Your task to perform on an android device: View the shopping cart on costco.com. Add "razer blade" to the cart on costco.com Image 0: 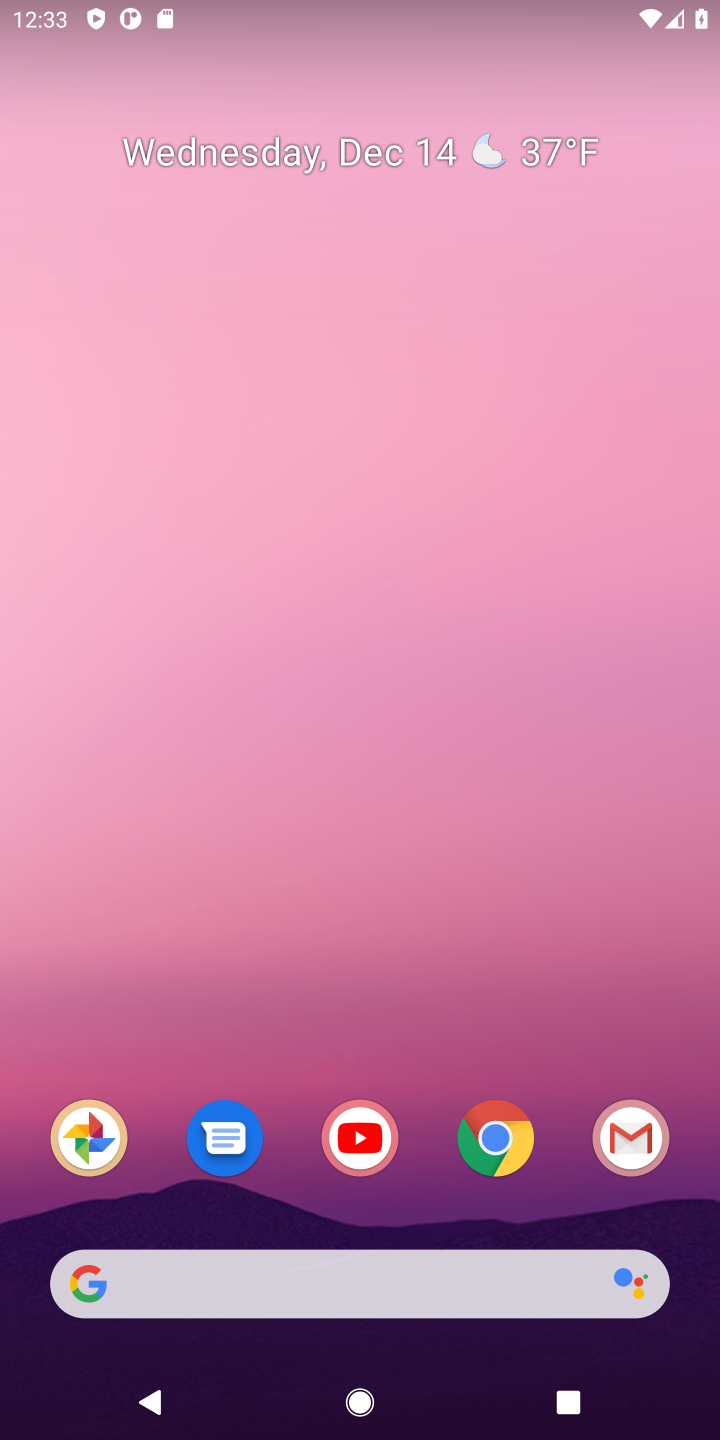
Step 0: click (511, 1125)
Your task to perform on an android device: View the shopping cart on costco.com. Add "razer blade" to the cart on costco.com Image 1: 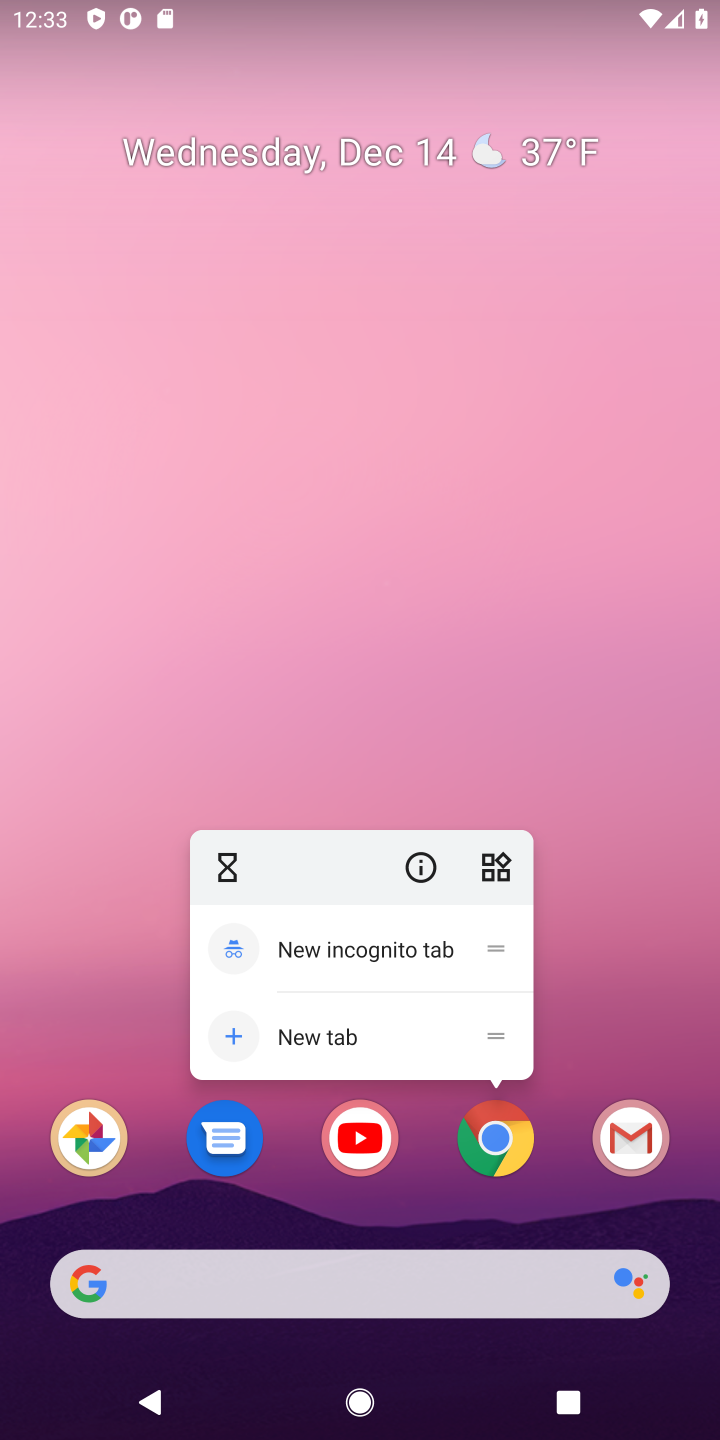
Step 1: click (497, 1144)
Your task to perform on an android device: View the shopping cart on costco.com. Add "razer blade" to the cart on costco.com Image 2: 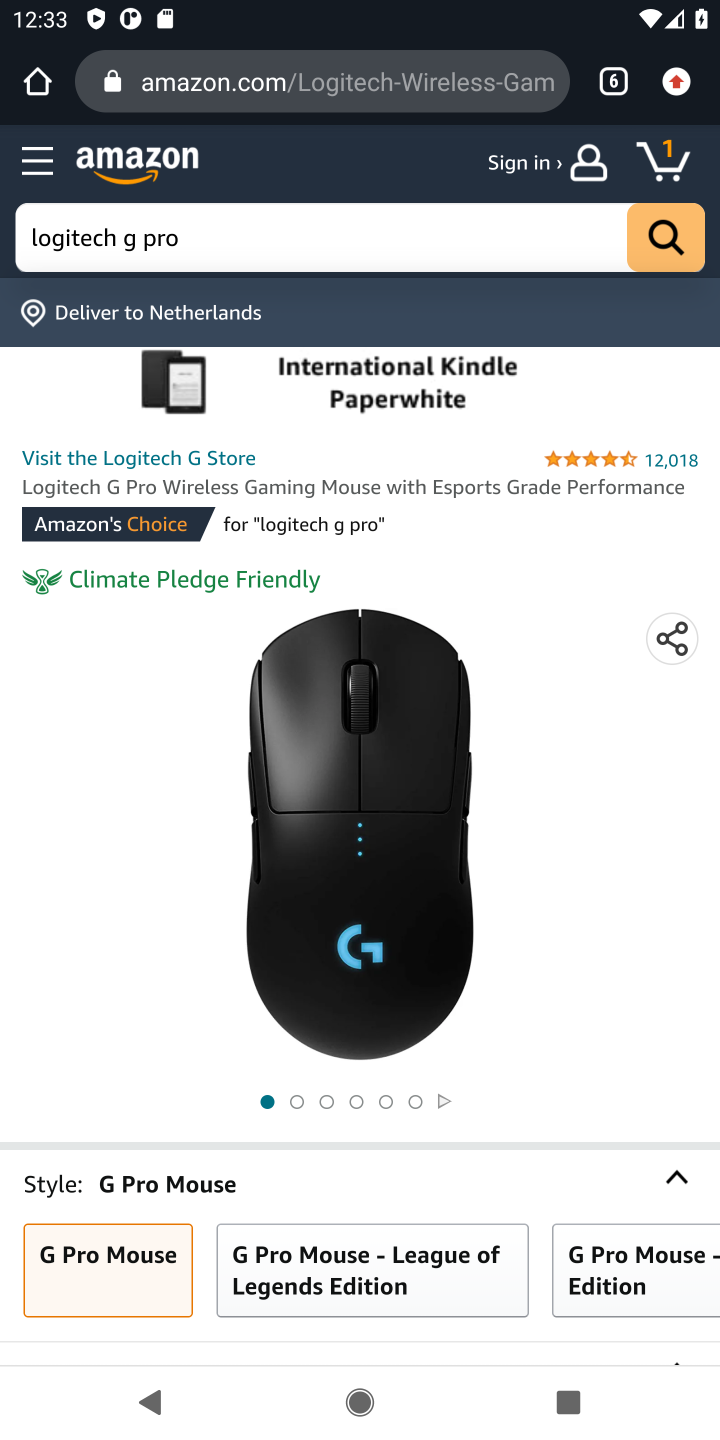
Step 2: click (619, 81)
Your task to perform on an android device: View the shopping cart on costco.com. Add "razer blade" to the cart on costco.com Image 3: 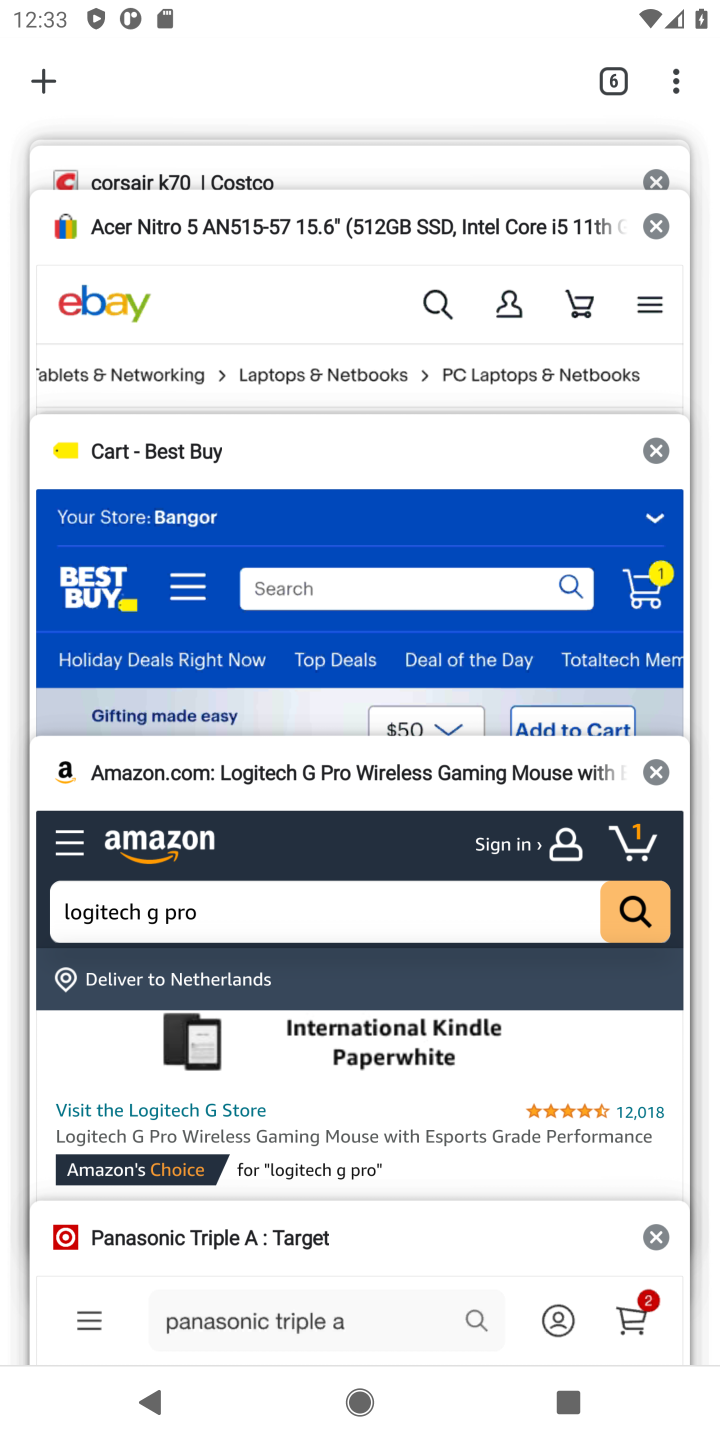
Step 3: click (231, 170)
Your task to perform on an android device: View the shopping cart on costco.com. Add "razer blade" to the cart on costco.com Image 4: 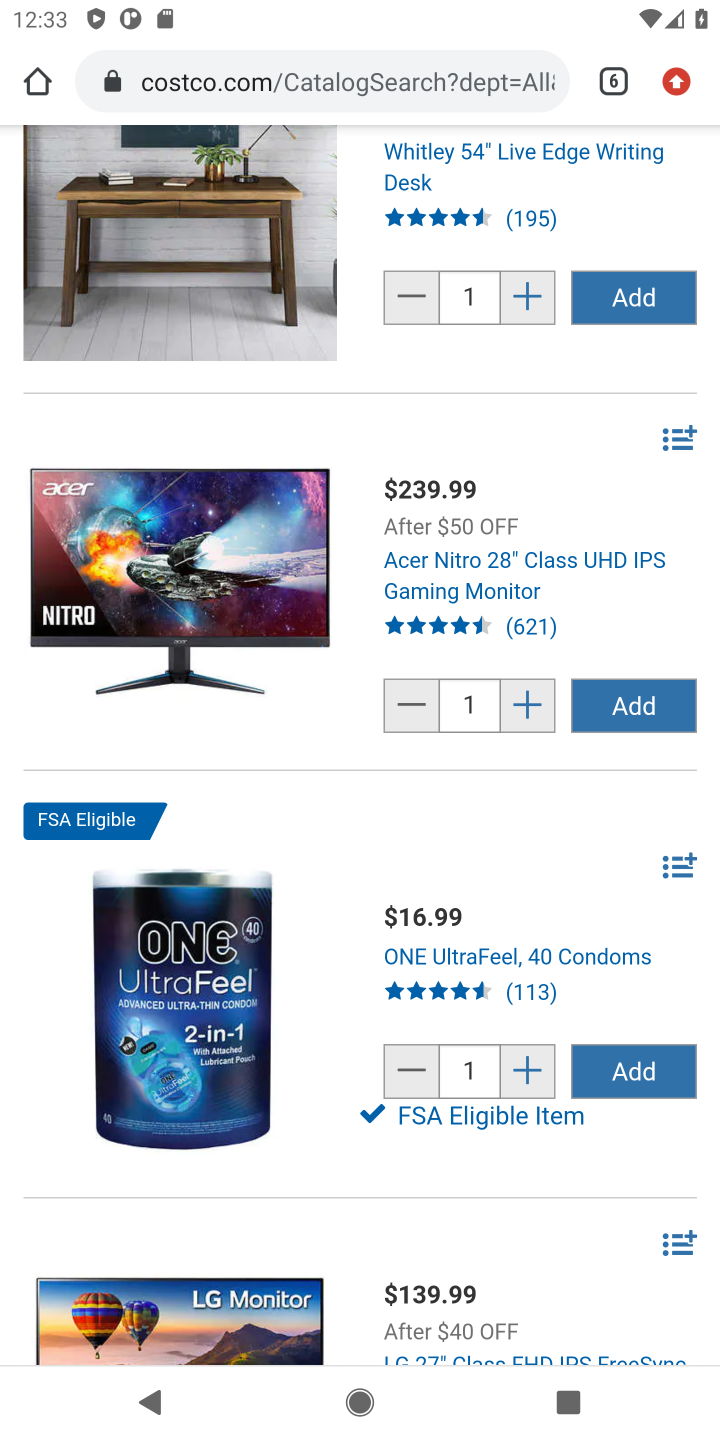
Step 4: drag from (613, 194) to (670, 819)
Your task to perform on an android device: View the shopping cart on costco.com. Add "razer blade" to the cart on costco.com Image 5: 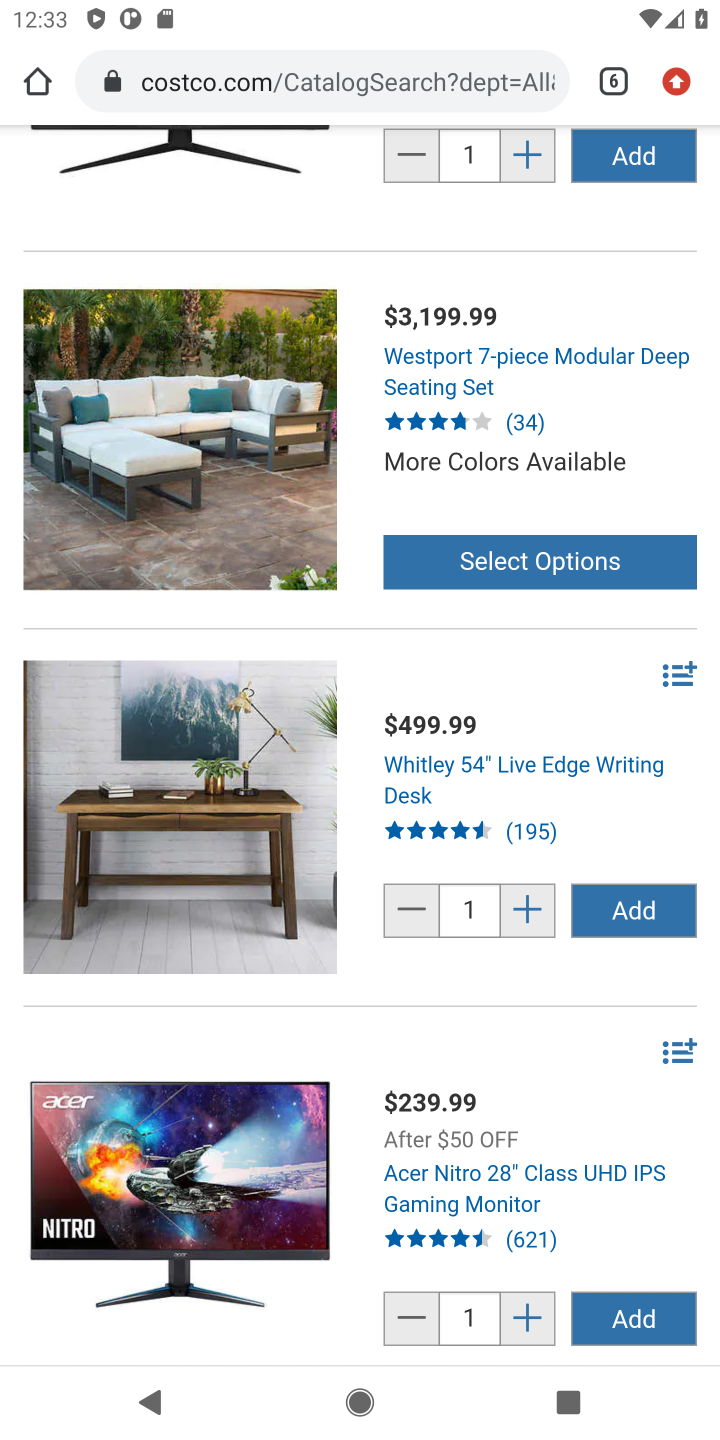
Step 5: drag from (598, 277) to (615, 712)
Your task to perform on an android device: View the shopping cart on costco.com. Add "razer blade" to the cart on costco.com Image 6: 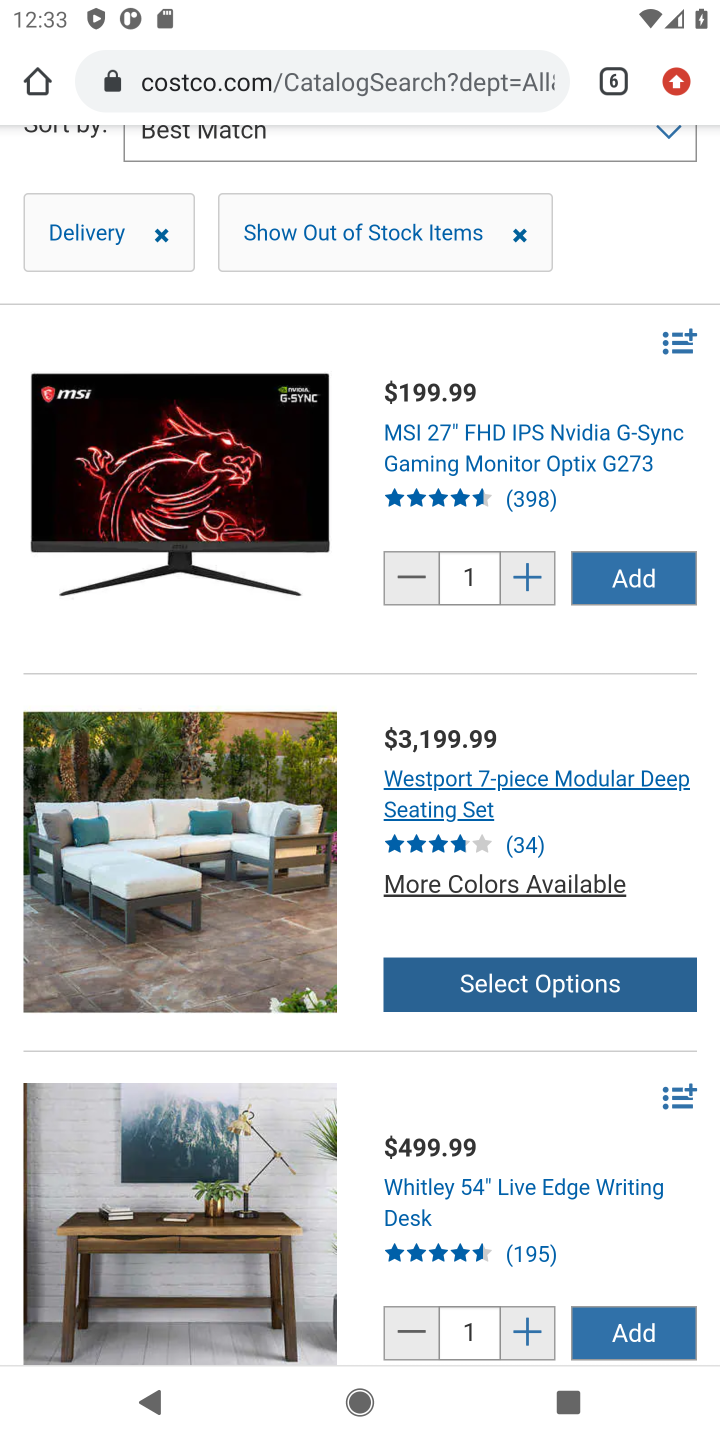
Step 6: drag from (641, 255) to (719, 864)
Your task to perform on an android device: View the shopping cart on costco.com. Add "razer blade" to the cart on costco.com Image 7: 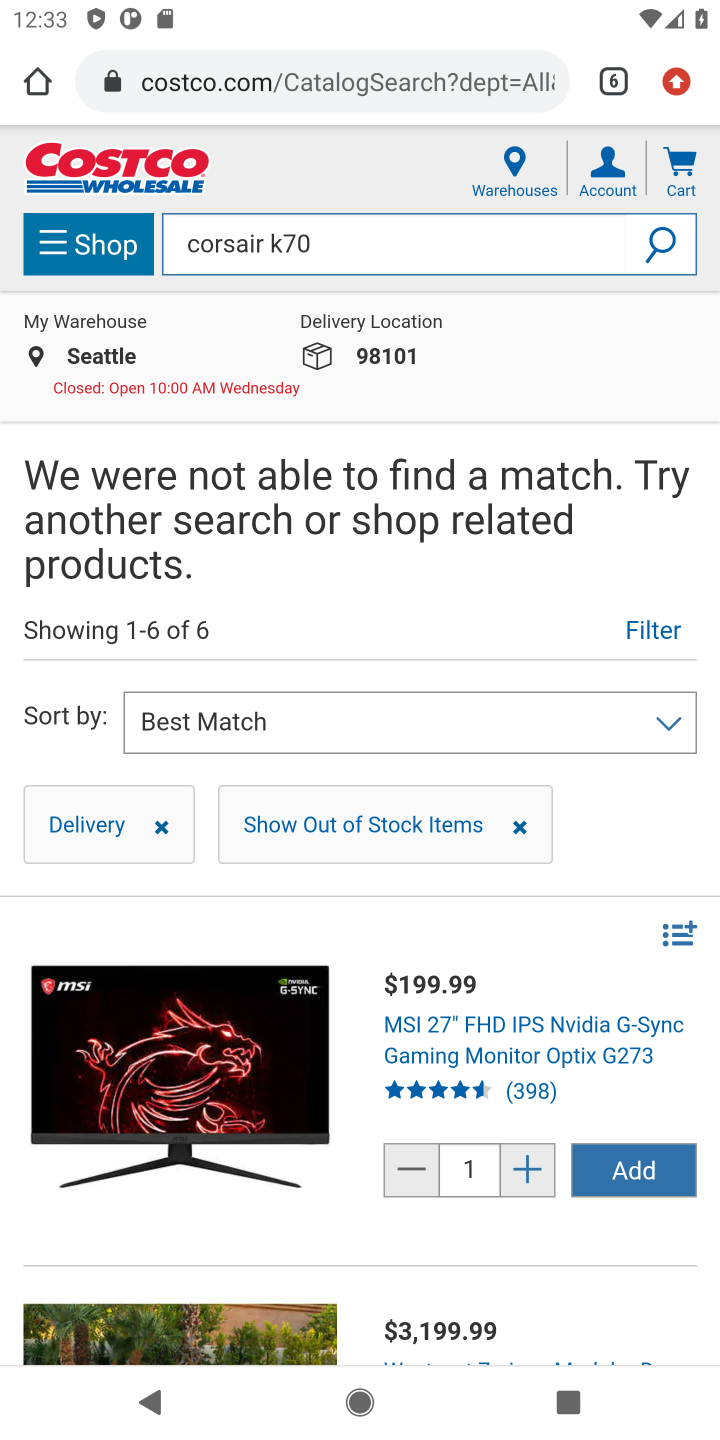
Step 7: drag from (614, 249) to (684, 987)
Your task to perform on an android device: View the shopping cart on costco.com. Add "razer blade" to the cart on costco.com Image 8: 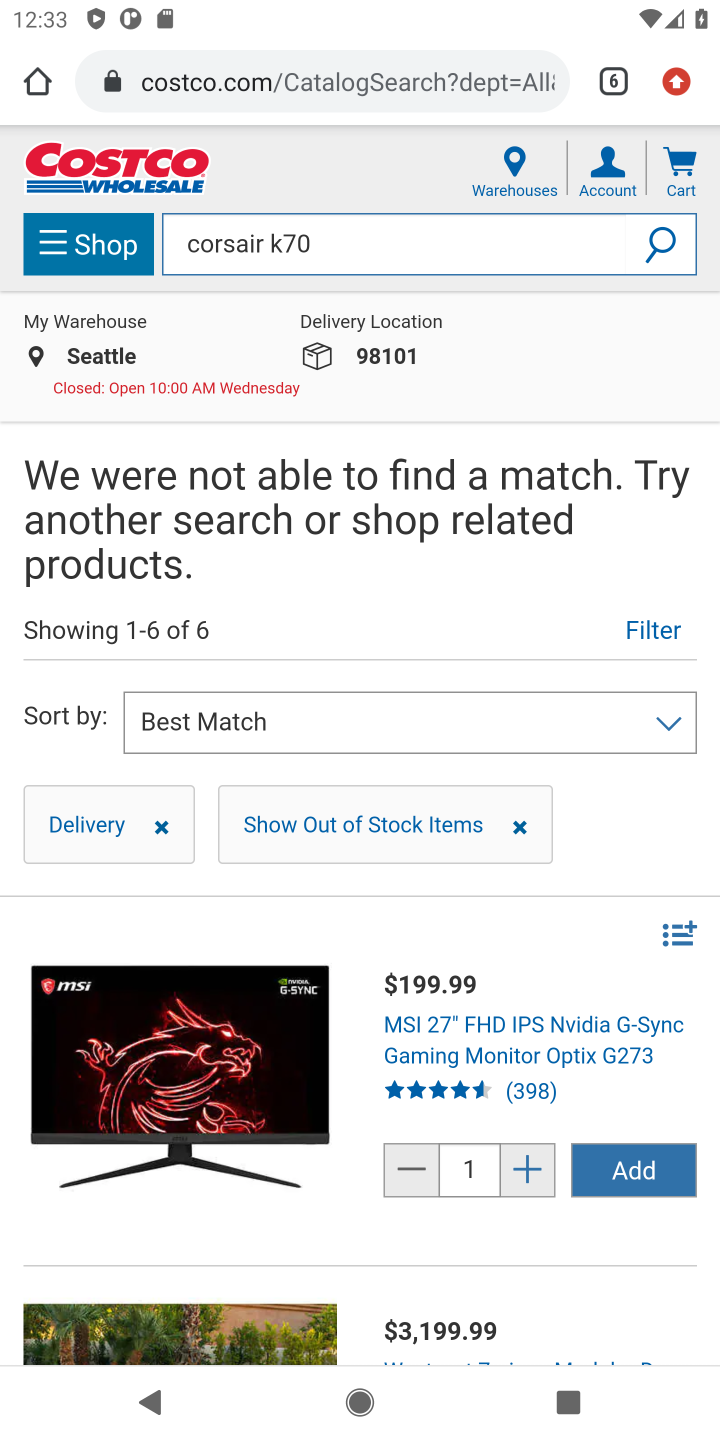
Step 8: click (691, 165)
Your task to perform on an android device: View the shopping cart on costco.com. Add "razer blade" to the cart on costco.com Image 9: 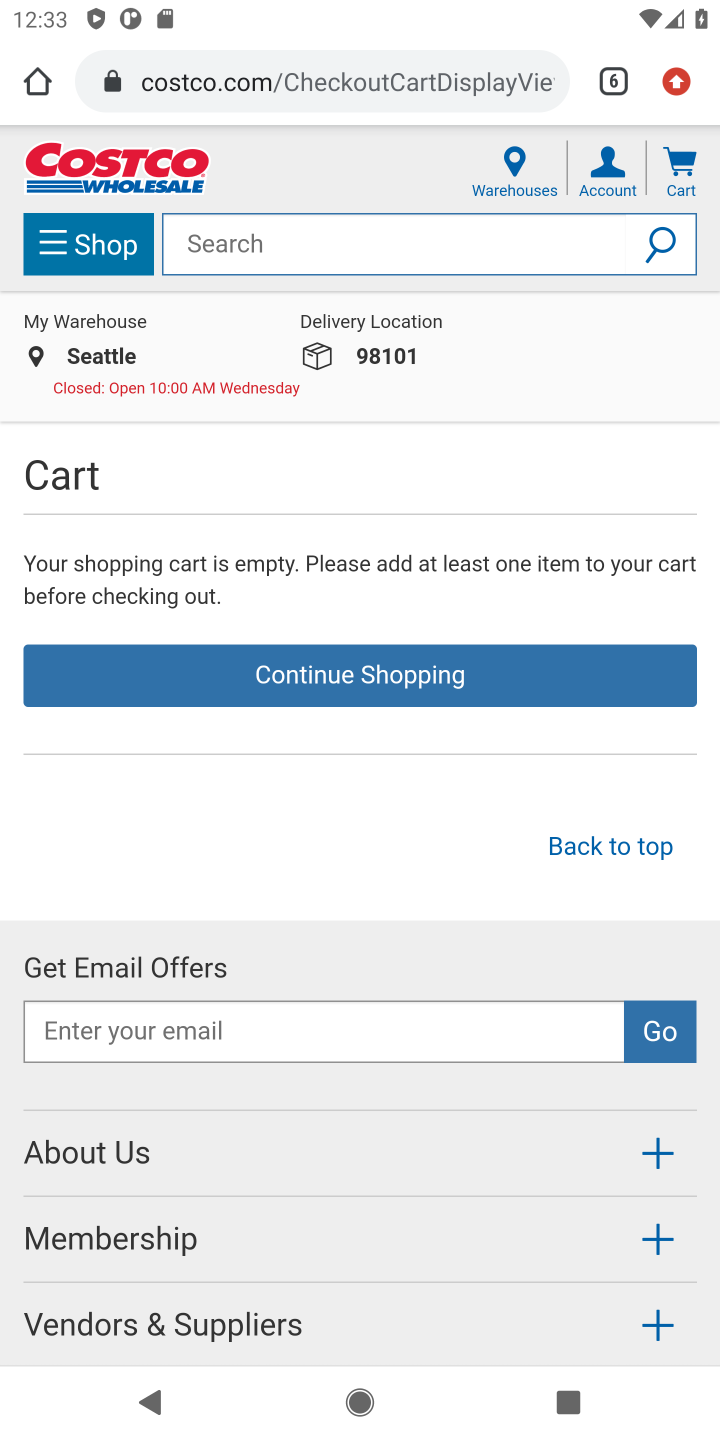
Step 9: click (237, 236)
Your task to perform on an android device: View the shopping cart on costco.com. Add "razer blade" to the cart on costco.com Image 10: 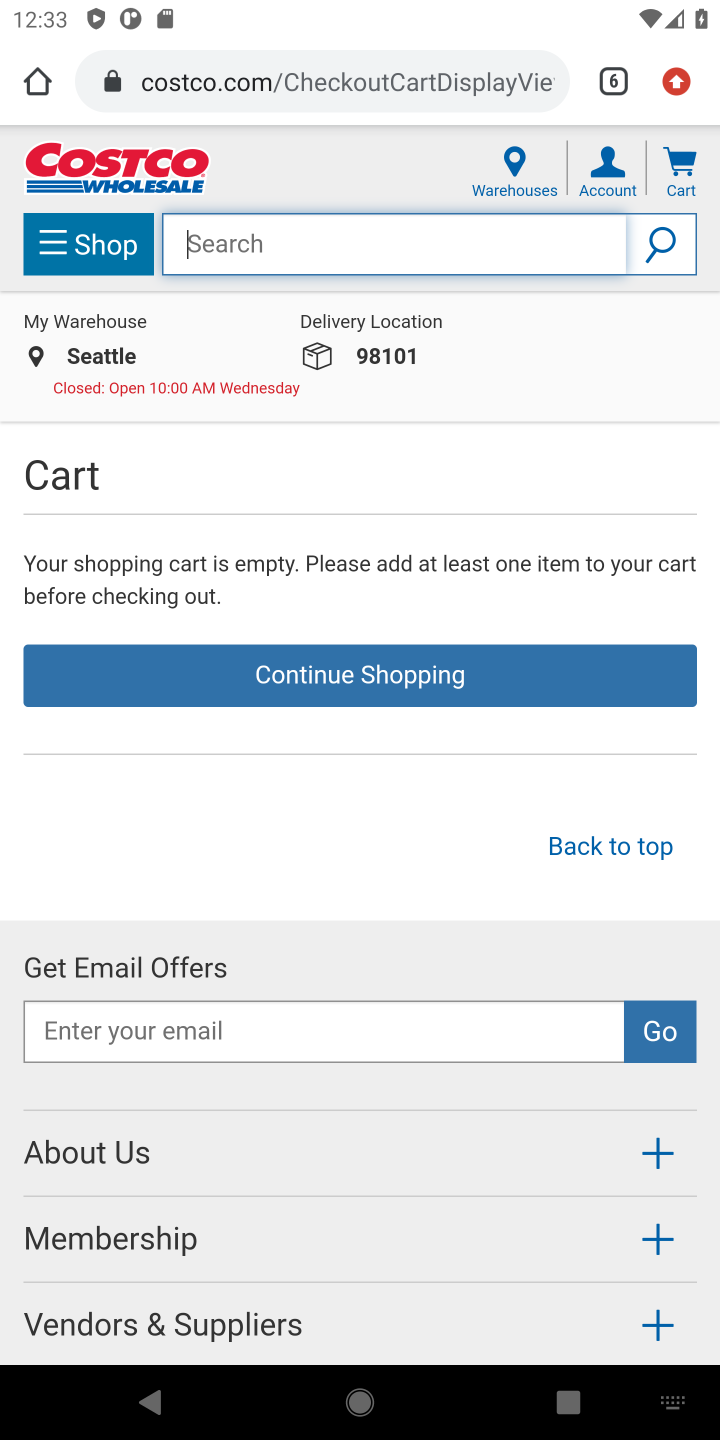
Step 10: type "razer blade"
Your task to perform on an android device: View the shopping cart on costco.com. Add "razer blade" to the cart on costco.com Image 11: 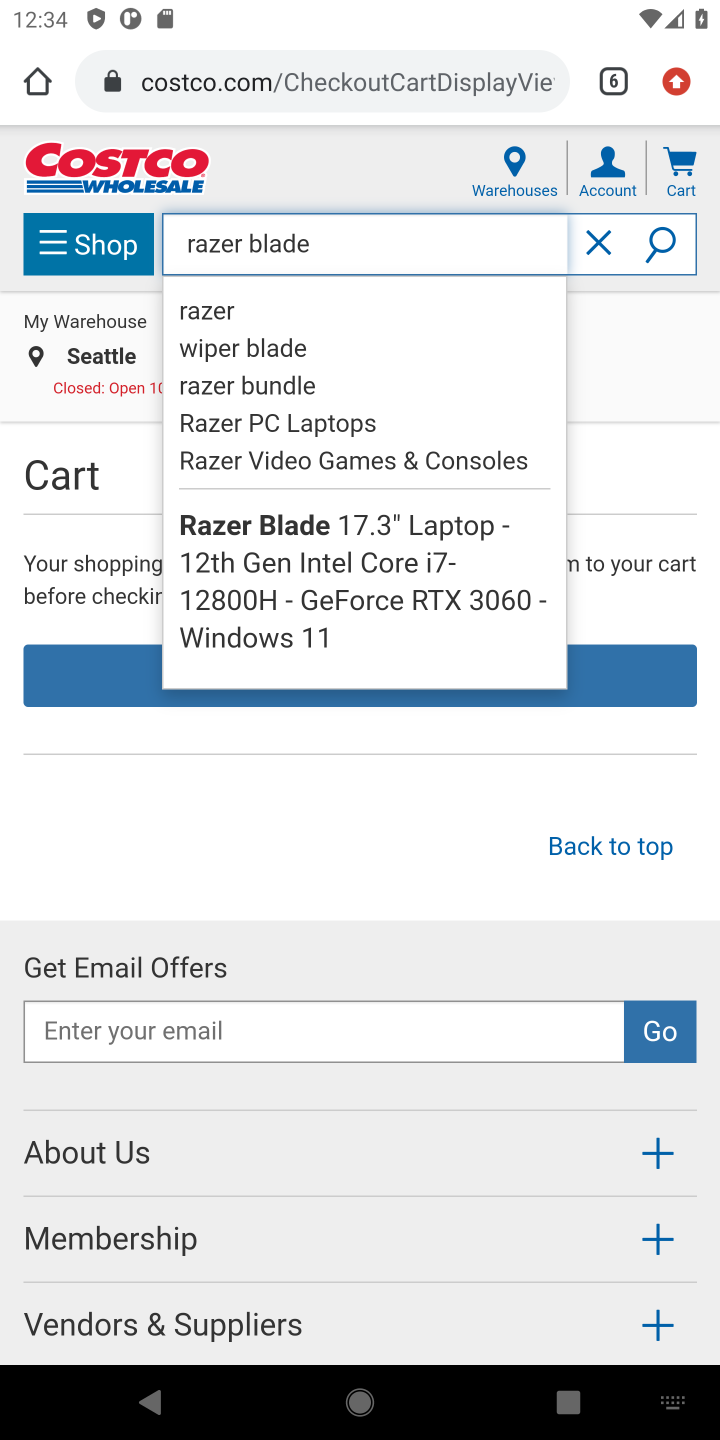
Step 11: click (643, 238)
Your task to perform on an android device: View the shopping cart on costco.com. Add "razer blade" to the cart on costco.com Image 12: 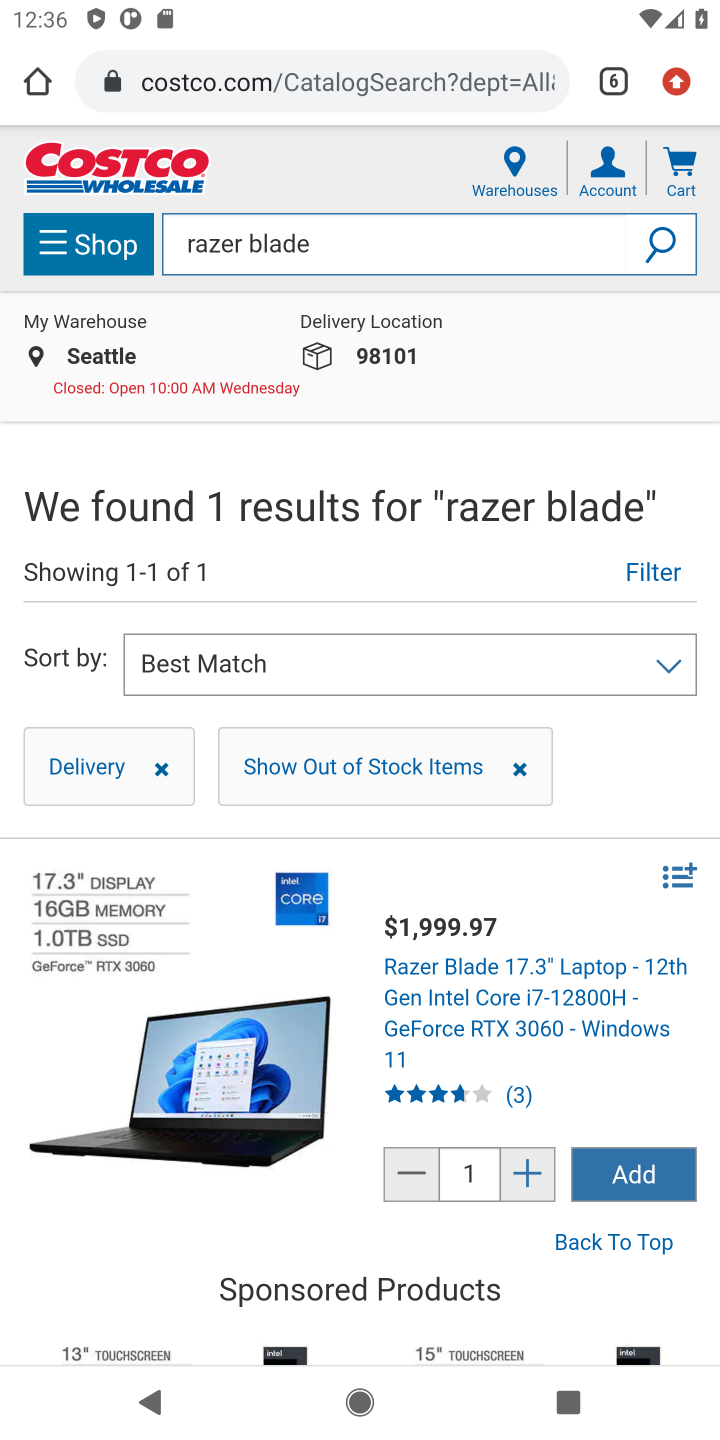
Step 12: click (625, 1167)
Your task to perform on an android device: View the shopping cart on costco.com. Add "razer blade" to the cart on costco.com Image 13: 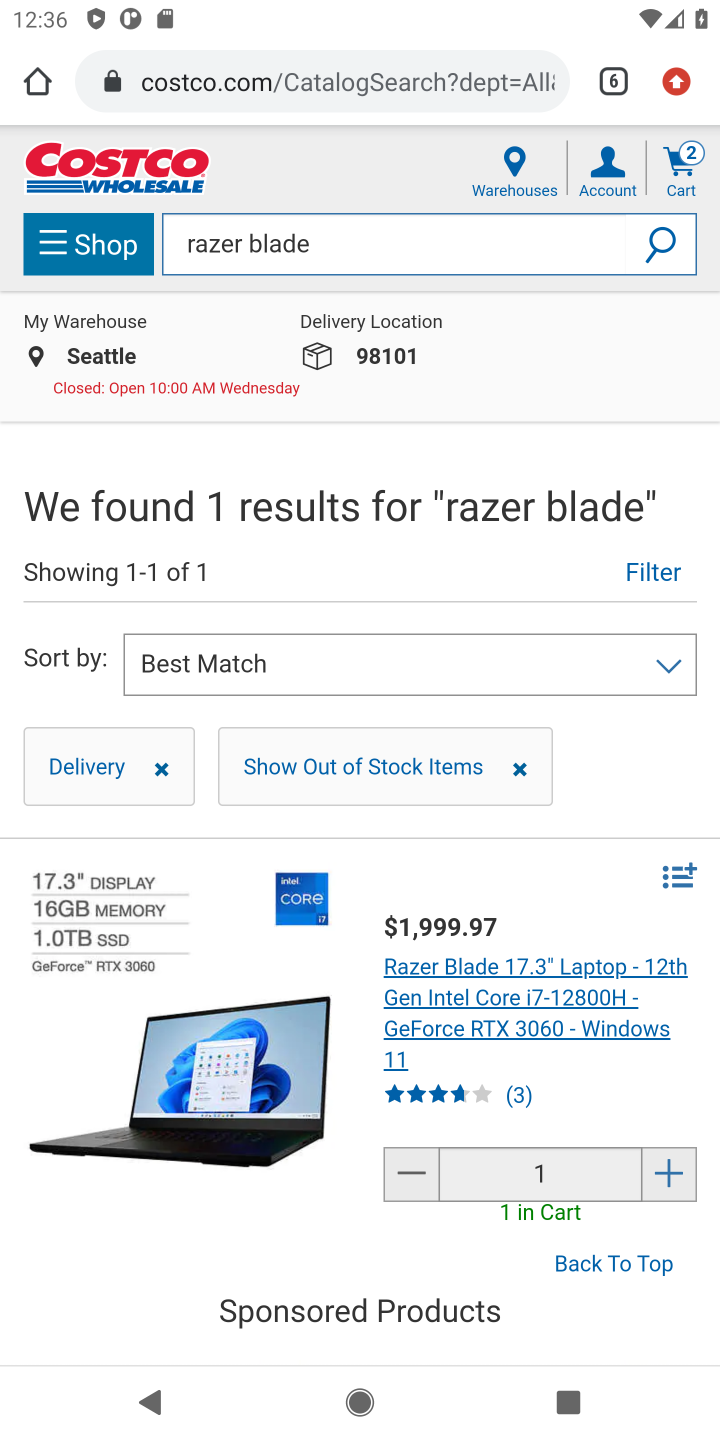
Step 13: task complete